Your task to perform on an android device: uninstall "Chime – Mobile Banking" Image 0: 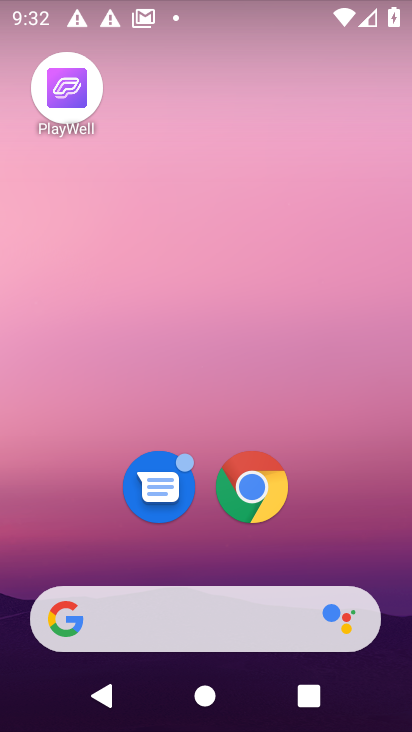
Step 0: drag from (174, 324) to (152, 22)
Your task to perform on an android device: uninstall "Chime – Mobile Banking" Image 1: 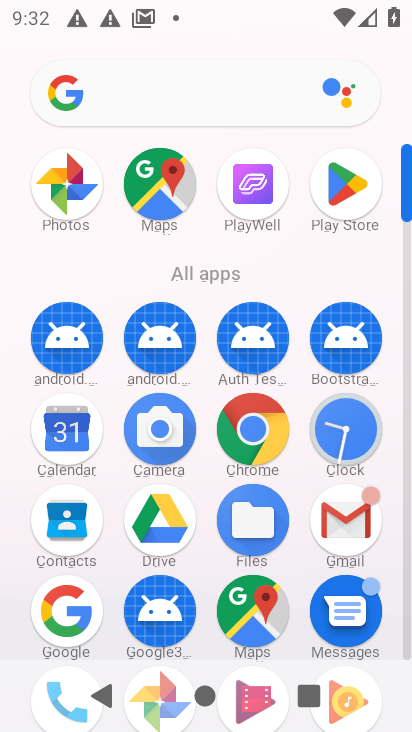
Step 1: click (348, 212)
Your task to perform on an android device: uninstall "Chime – Mobile Banking" Image 2: 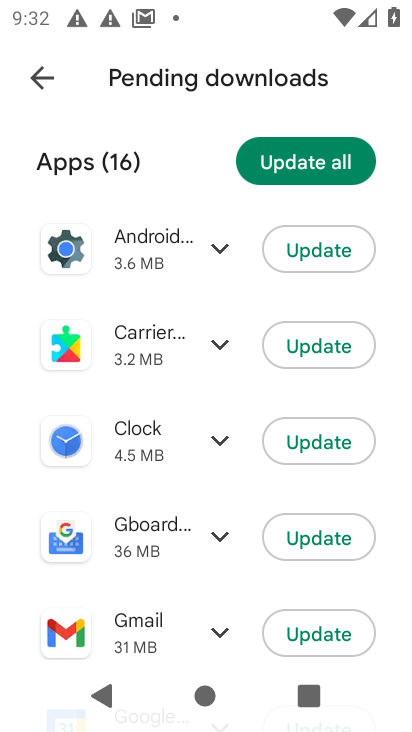
Step 2: click (47, 73)
Your task to perform on an android device: uninstall "Chime – Mobile Banking" Image 3: 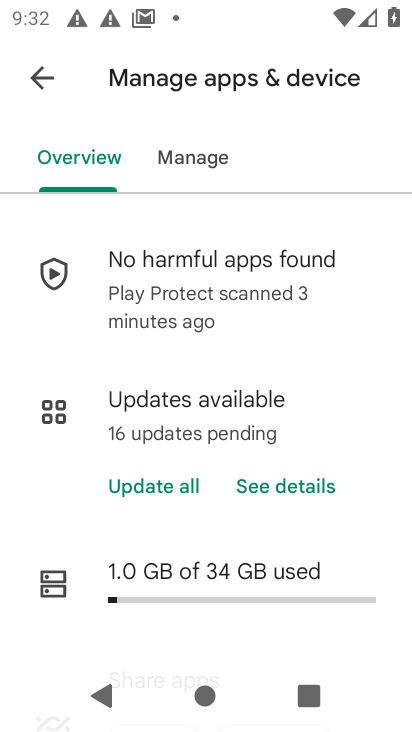
Step 3: click (46, 69)
Your task to perform on an android device: uninstall "Chime – Mobile Banking" Image 4: 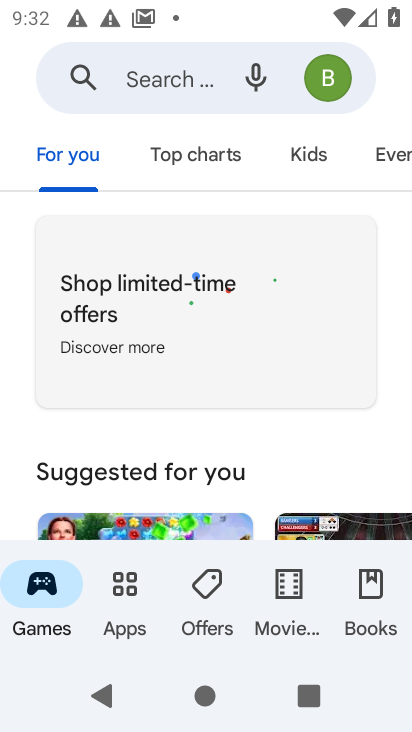
Step 4: click (154, 79)
Your task to perform on an android device: uninstall "Chime – Mobile Banking" Image 5: 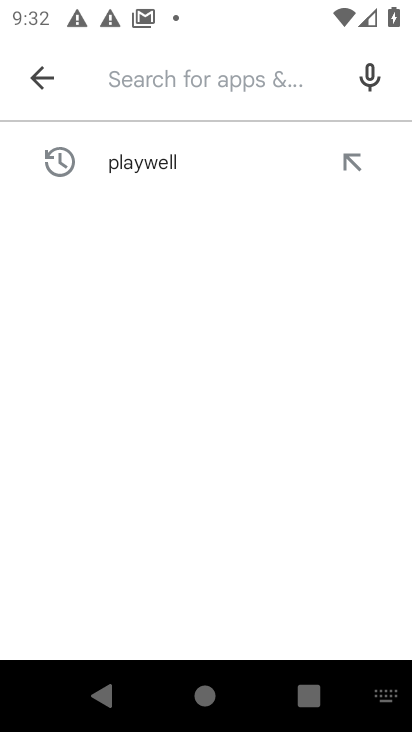
Step 5: type "chime"
Your task to perform on an android device: uninstall "Chime – Mobile Banking" Image 6: 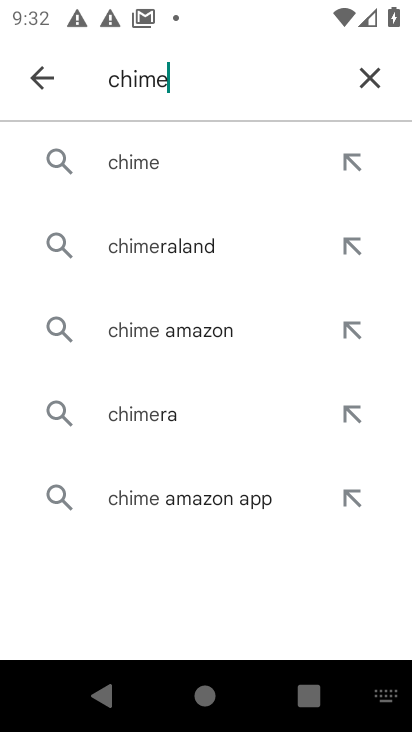
Step 6: click (184, 158)
Your task to perform on an android device: uninstall "Chime – Mobile Banking" Image 7: 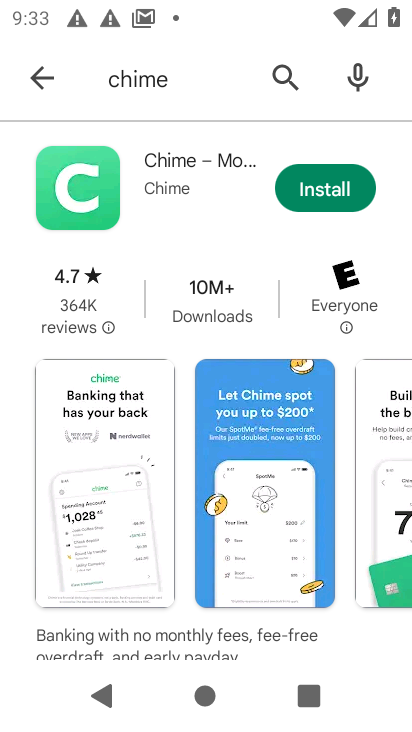
Step 7: click (87, 199)
Your task to perform on an android device: uninstall "Chime – Mobile Banking" Image 8: 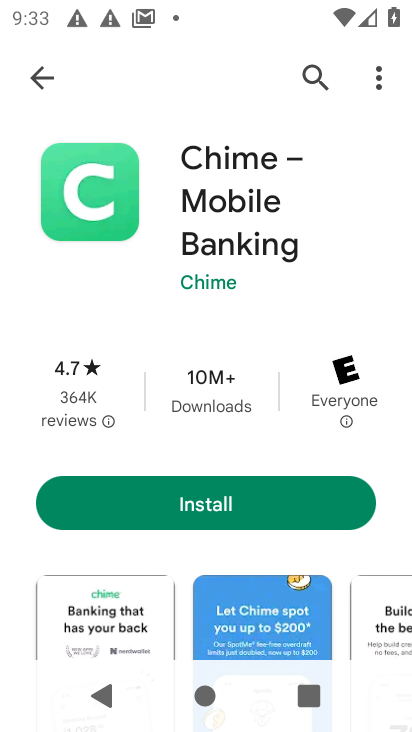
Step 8: task complete